Your task to perform on an android device: Is it going to rain this weekend? Image 0: 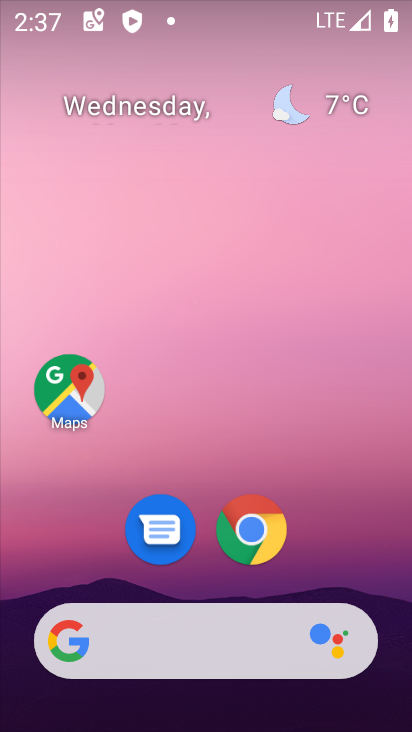
Step 0: drag from (368, 535) to (338, 198)
Your task to perform on an android device: Is it going to rain this weekend? Image 1: 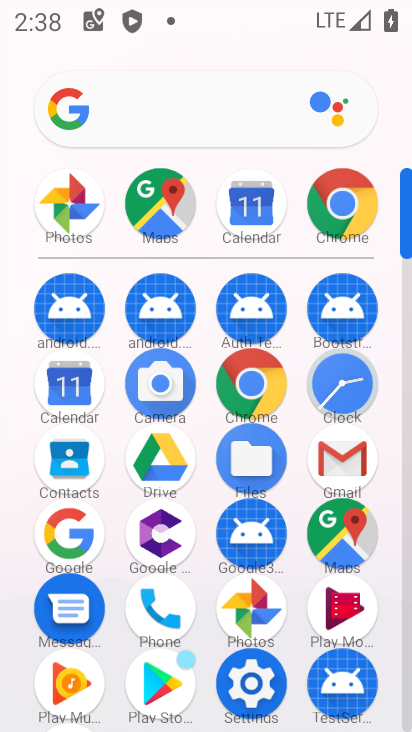
Step 1: press home button
Your task to perform on an android device: Is it going to rain this weekend? Image 2: 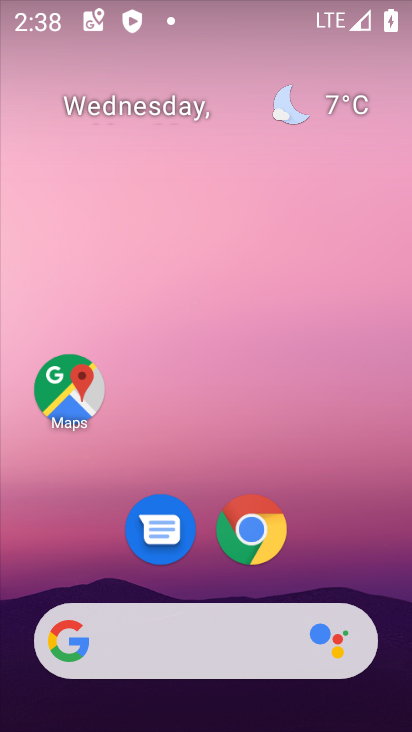
Step 2: click (332, 111)
Your task to perform on an android device: Is it going to rain this weekend? Image 3: 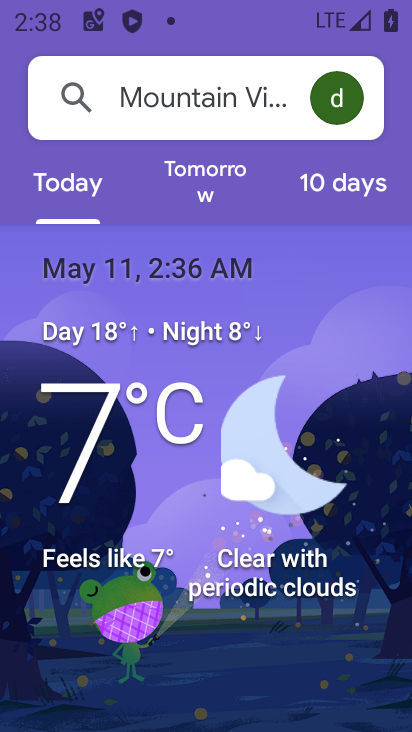
Step 3: click (324, 193)
Your task to perform on an android device: Is it going to rain this weekend? Image 4: 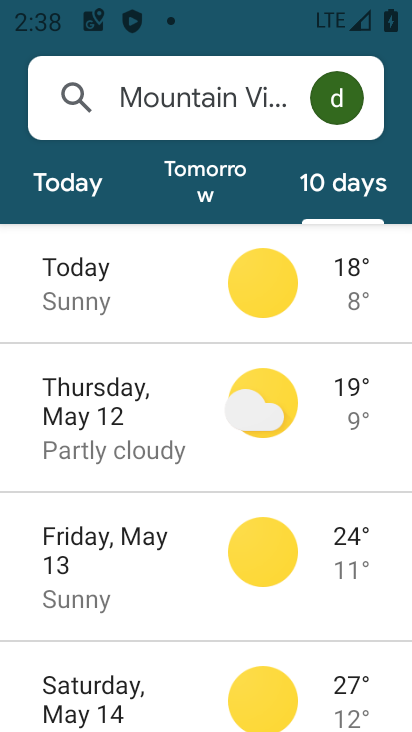
Step 4: task complete